Your task to perform on an android device: Open Android settings Image 0: 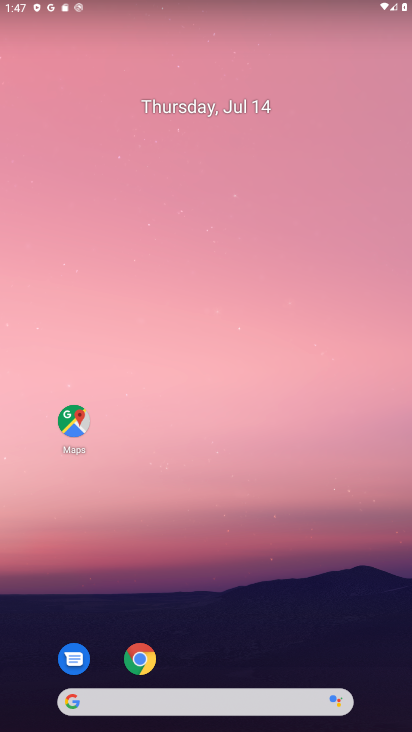
Step 0: drag from (207, 645) to (313, 62)
Your task to perform on an android device: Open Android settings Image 1: 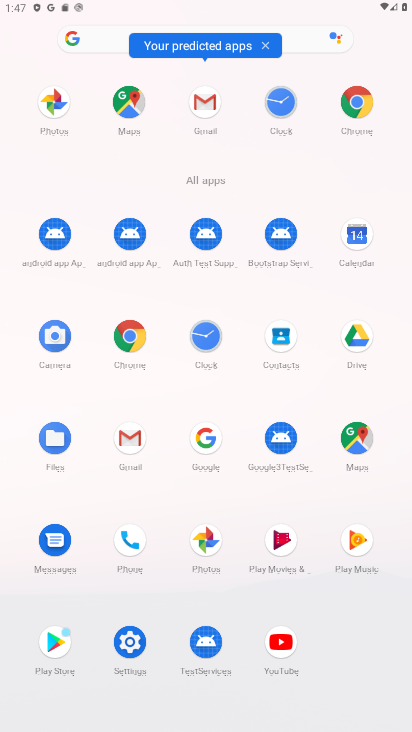
Step 1: click (137, 649)
Your task to perform on an android device: Open Android settings Image 2: 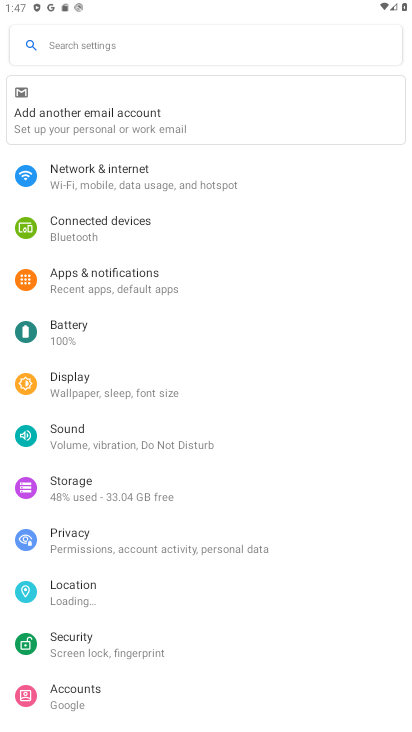
Step 2: task complete